Your task to perform on an android device: What's on my calendar tomorrow? Image 0: 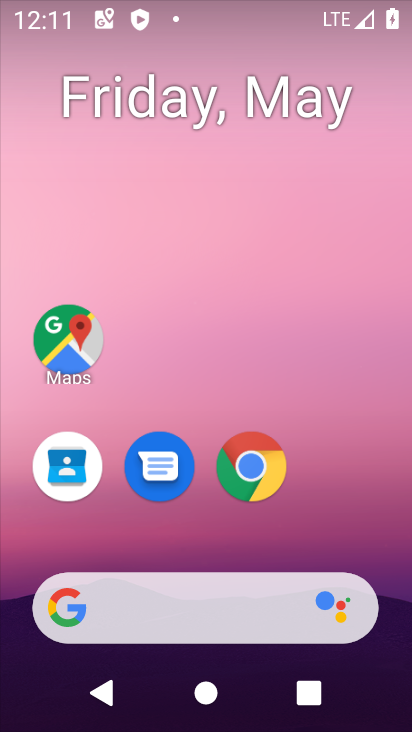
Step 0: drag from (207, 537) to (162, 1)
Your task to perform on an android device: What's on my calendar tomorrow? Image 1: 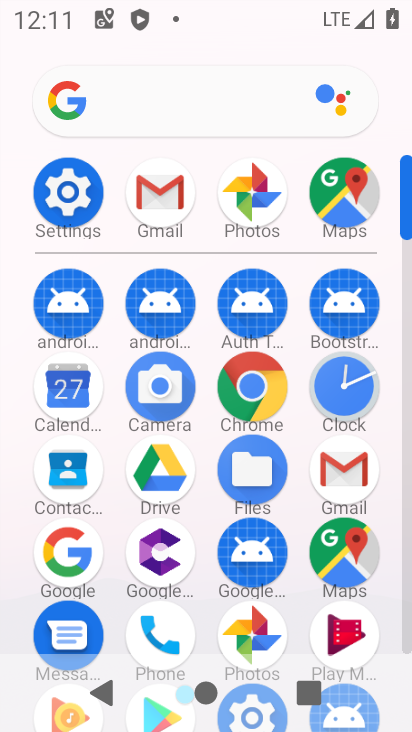
Step 1: drag from (266, 632) to (254, 291)
Your task to perform on an android device: What's on my calendar tomorrow? Image 2: 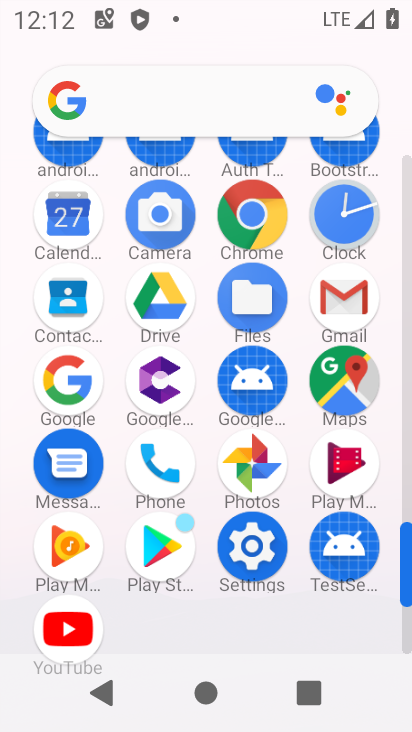
Step 2: click (65, 228)
Your task to perform on an android device: What's on my calendar tomorrow? Image 3: 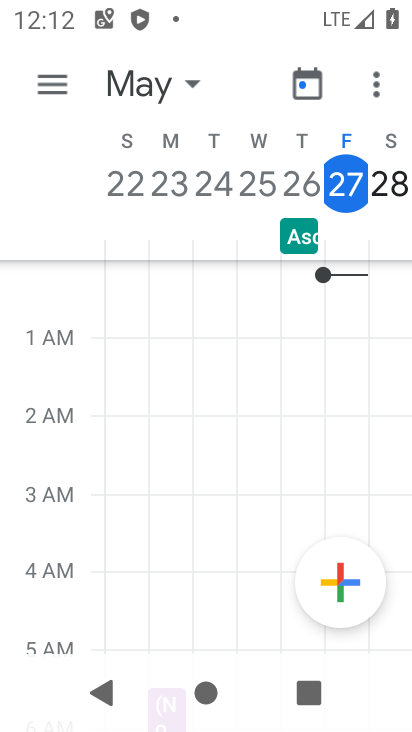
Step 3: click (120, 90)
Your task to perform on an android device: What's on my calendar tomorrow? Image 4: 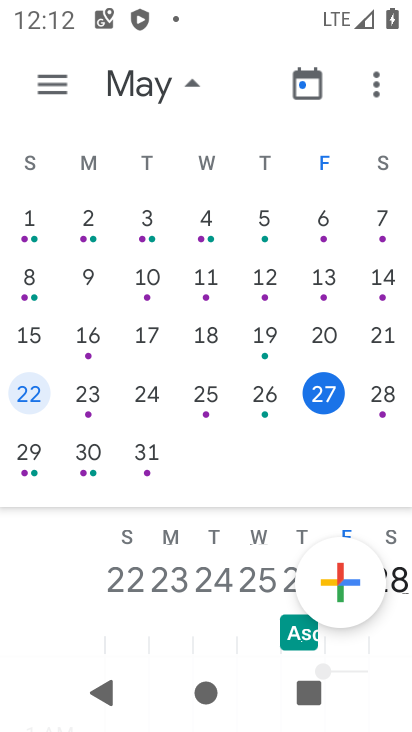
Step 4: drag from (318, 285) to (38, 326)
Your task to perform on an android device: What's on my calendar tomorrow? Image 5: 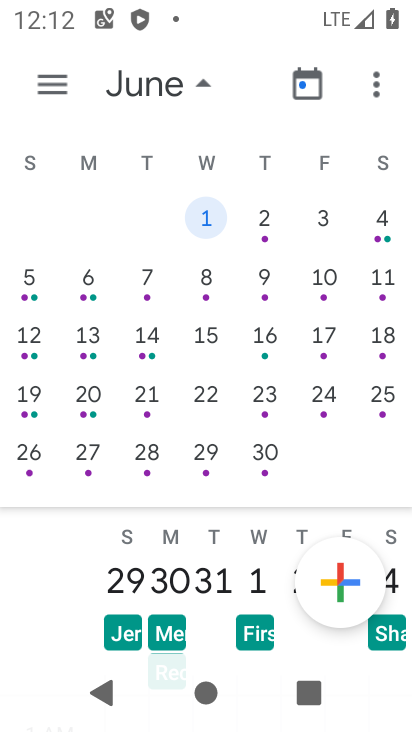
Step 5: drag from (115, 306) to (408, 375)
Your task to perform on an android device: What's on my calendar tomorrow? Image 6: 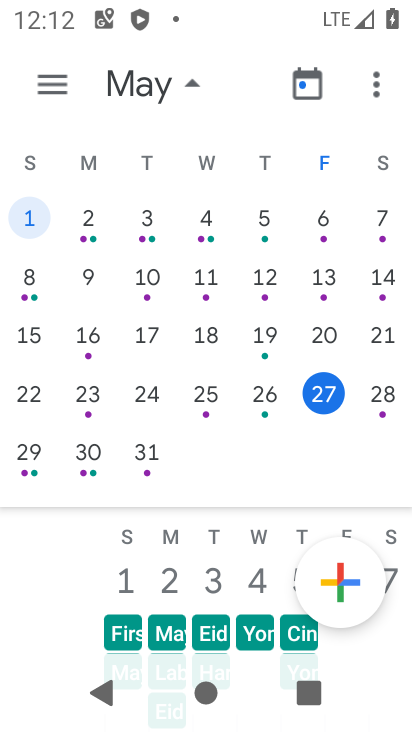
Step 6: click (382, 404)
Your task to perform on an android device: What's on my calendar tomorrow? Image 7: 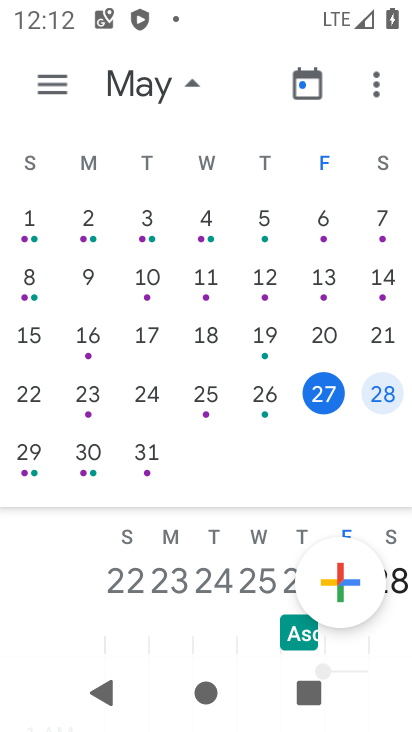
Step 7: click (56, 88)
Your task to perform on an android device: What's on my calendar tomorrow? Image 8: 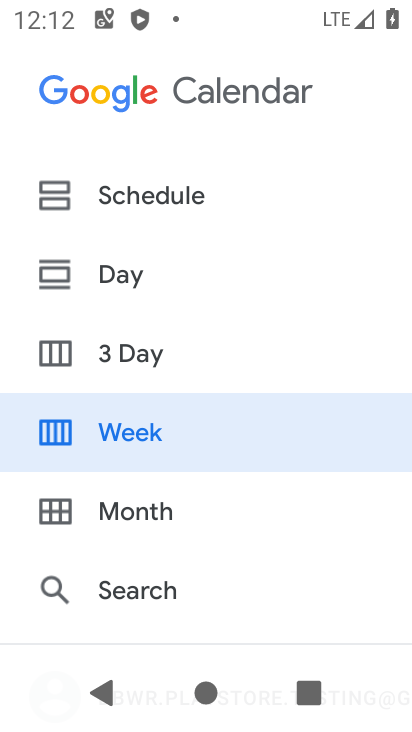
Step 8: click (134, 200)
Your task to perform on an android device: What's on my calendar tomorrow? Image 9: 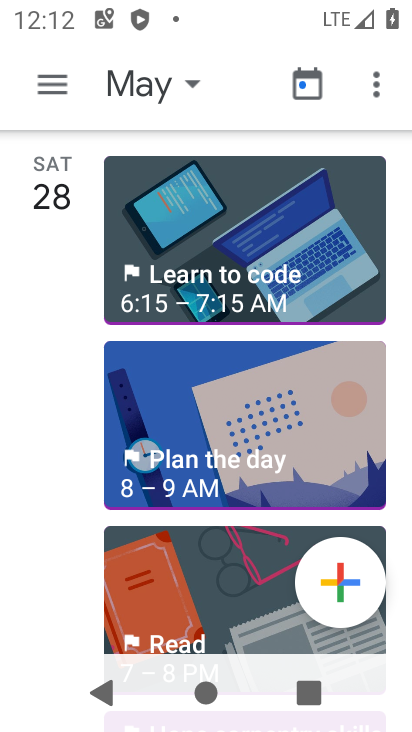
Step 9: task complete